Your task to perform on an android device: open sync settings in chrome Image 0: 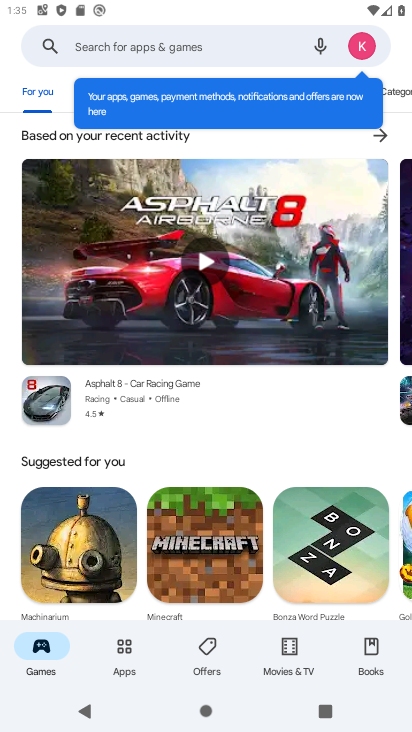
Step 0: press home button
Your task to perform on an android device: open sync settings in chrome Image 1: 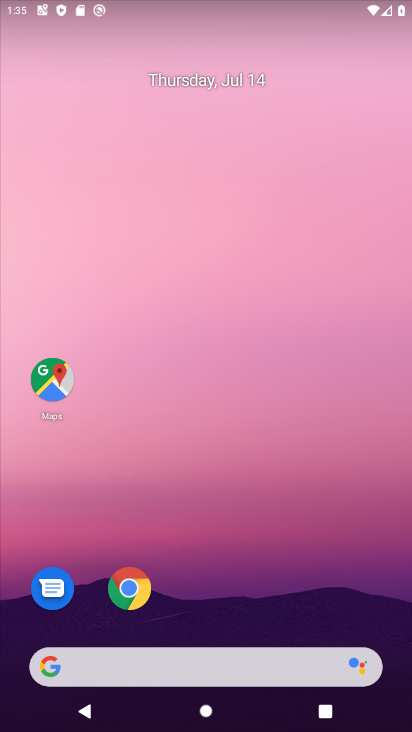
Step 1: click (132, 576)
Your task to perform on an android device: open sync settings in chrome Image 2: 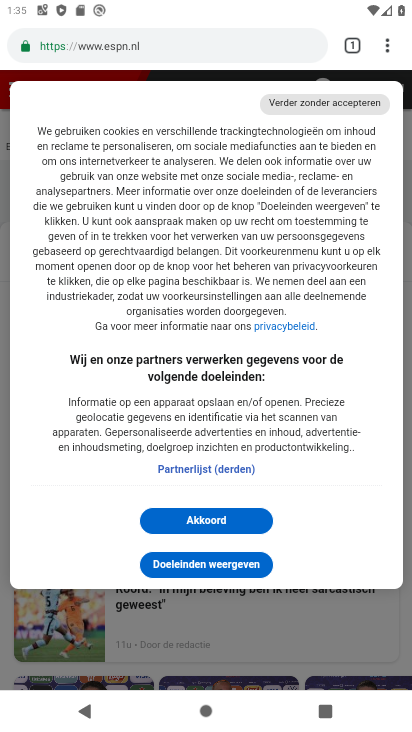
Step 2: drag from (390, 45) to (244, 556)
Your task to perform on an android device: open sync settings in chrome Image 3: 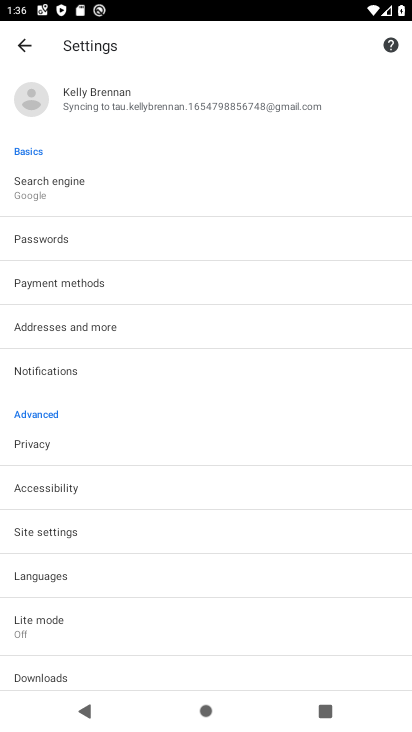
Step 3: click (136, 114)
Your task to perform on an android device: open sync settings in chrome Image 4: 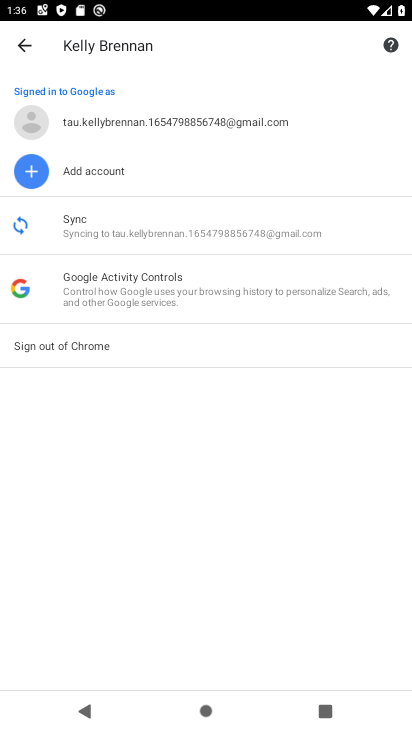
Step 4: click (185, 221)
Your task to perform on an android device: open sync settings in chrome Image 5: 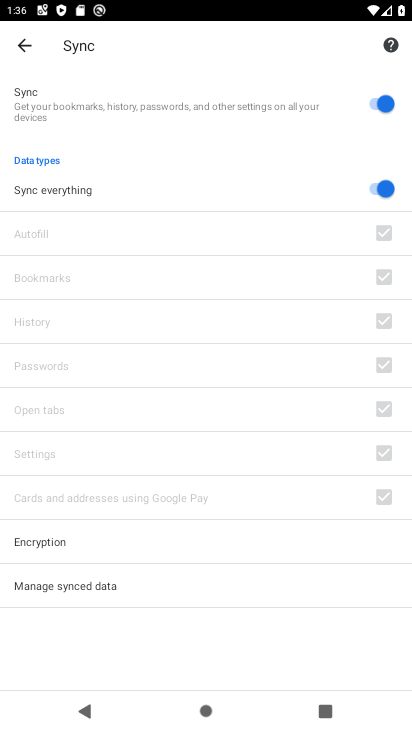
Step 5: task complete